Your task to perform on an android device: turn off javascript in the chrome app Image 0: 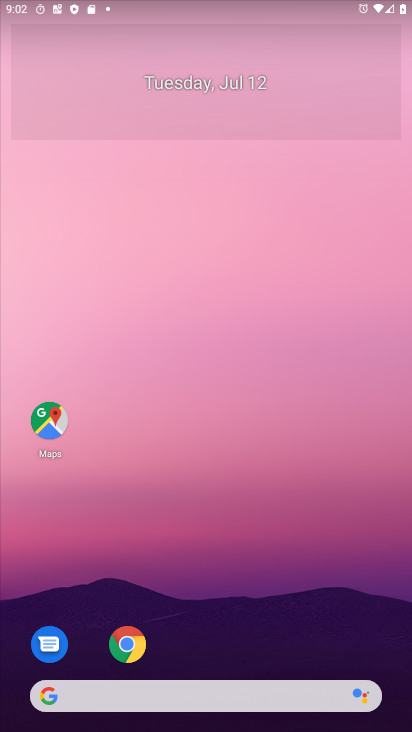
Step 0: click (126, 657)
Your task to perform on an android device: turn off javascript in the chrome app Image 1: 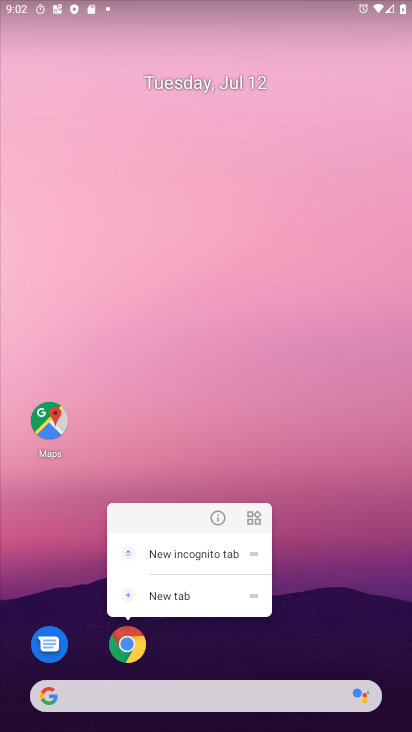
Step 1: click (112, 642)
Your task to perform on an android device: turn off javascript in the chrome app Image 2: 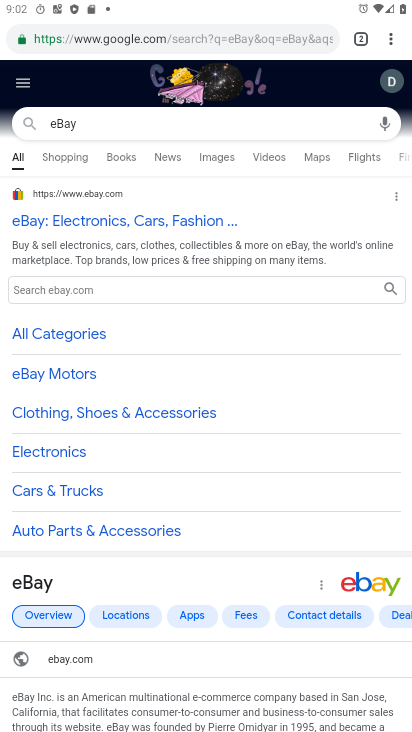
Step 2: click (383, 30)
Your task to perform on an android device: turn off javascript in the chrome app Image 3: 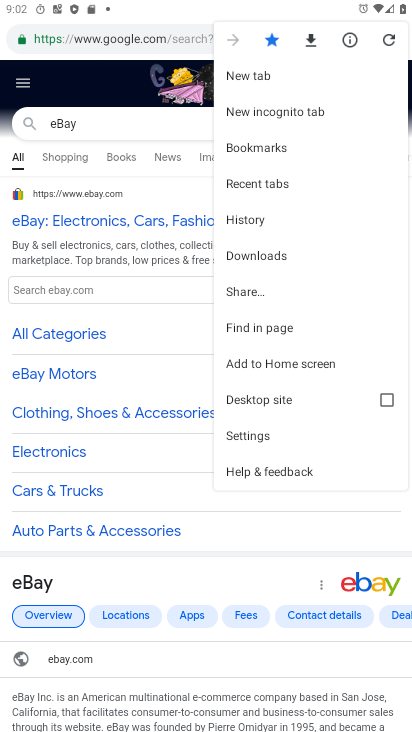
Step 3: click (263, 437)
Your task to perform on an android device: turn off javascript in the chrome app Image 4: 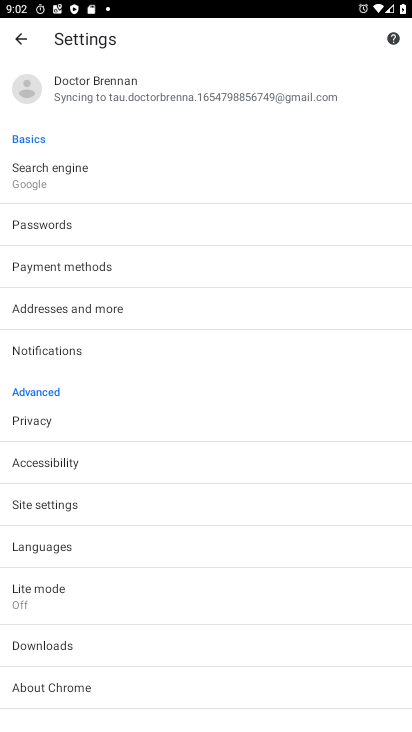
Step 4: click (45, 496)
Your task to perform on an android device: turn off javascript in the chrome app Image 5: 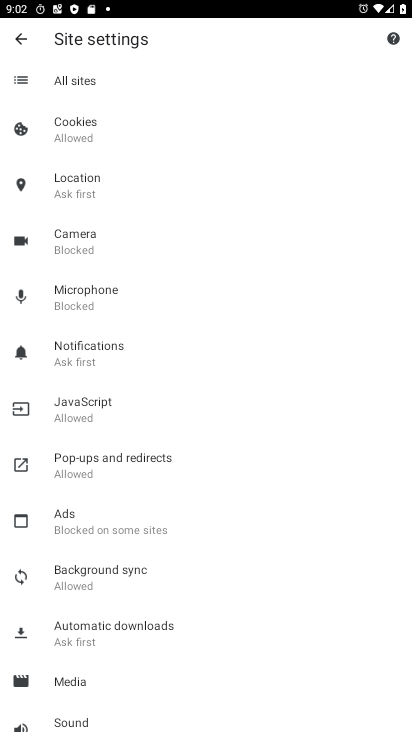
Step 5: click (80, 408)
Your task to perform on an android device: turn off javascript in the chrome app Image 6: 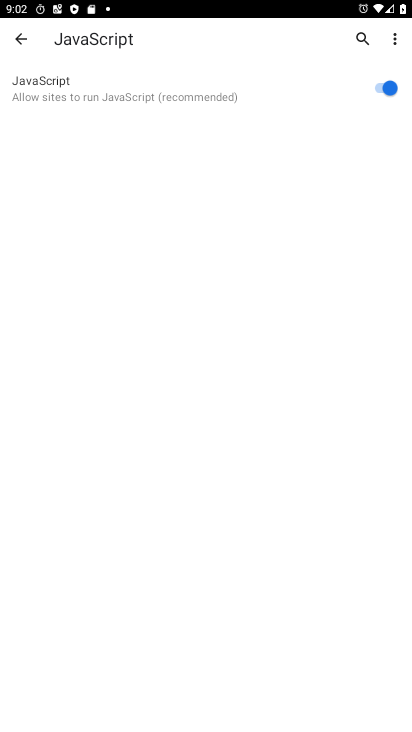
Step 6: task complete